Your task to perform on an android device: change notification settings in the gmail app Image 0: 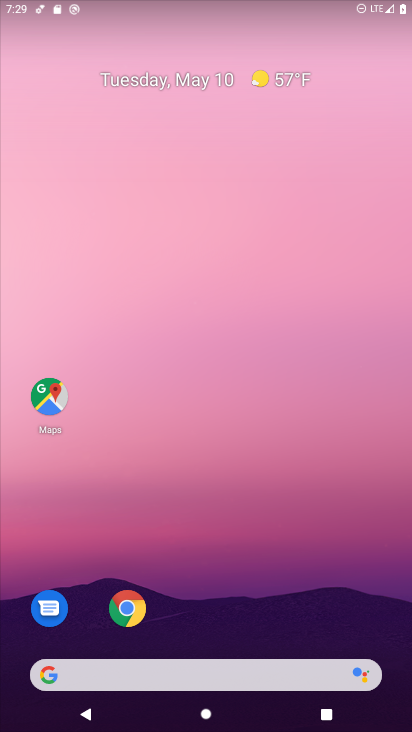
Step 0: drag from (370, 618) to (259, 33)
Your task to perform on an android device: change notification settings in the gmail app Image 1: 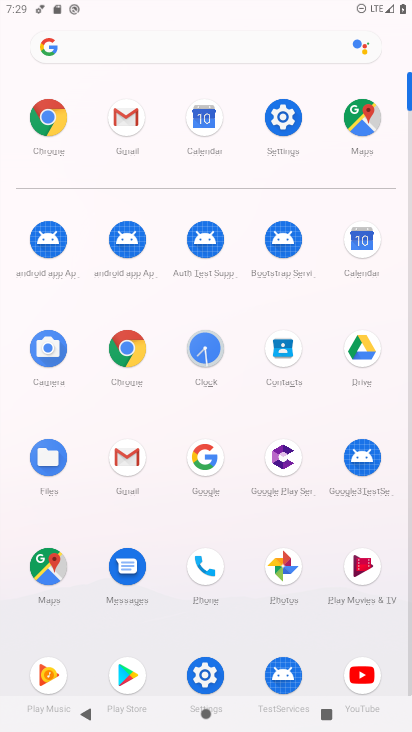
Step 1: click (137, 474)
Your task to perform on an android device: change notification settings in the gmail app Image 2: 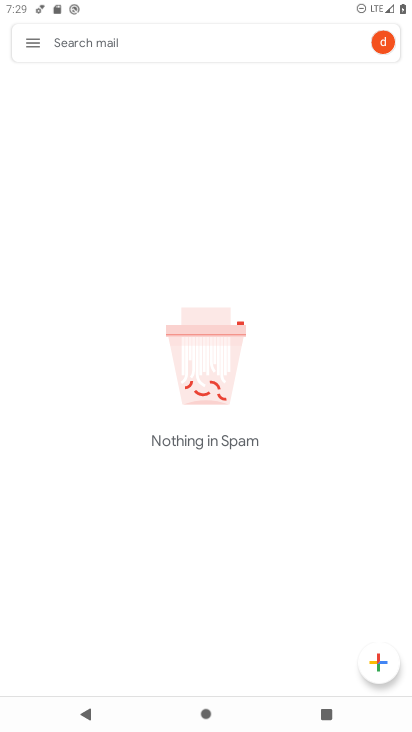
Step 2: click (26, 51)
Your task to perform on an android device: change notification settings in the gmail app Image 3: 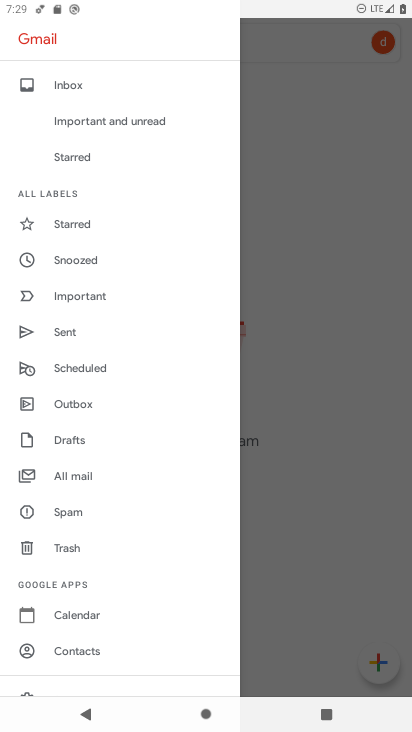
Step 3: drag from (98, 636) to (130, 271)
Your task to perform on an android device: change notification settings in the gmail app Image 4: 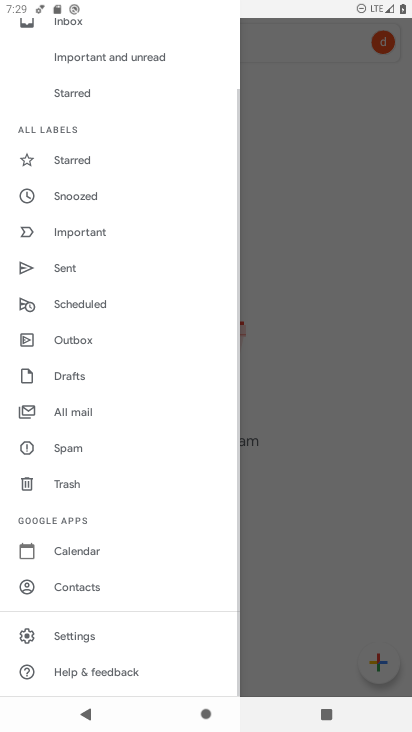
Step 4: click (88, 630)
Your task to perform on an android device: change notification settings in the gmail app Image 5: 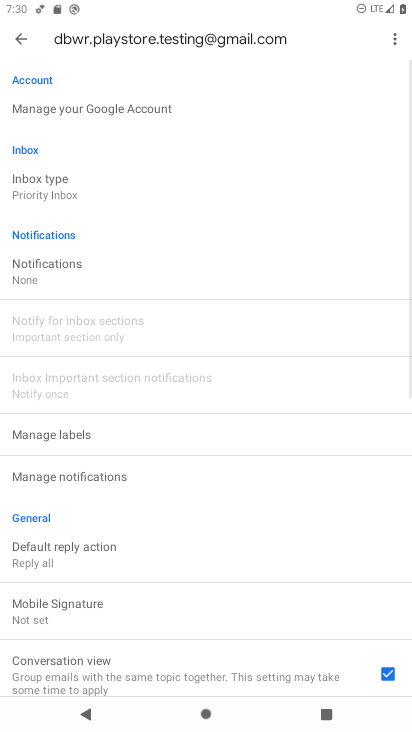
Step 5: click (95, 278)
Your task to perform on an android device: change notification settings in the gmail app Image 6: 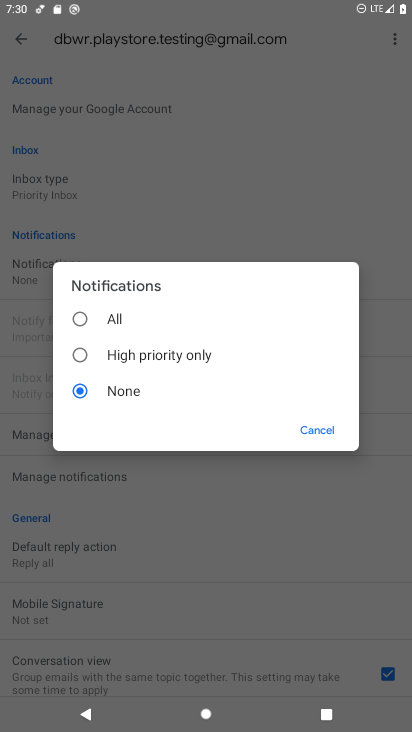
Step 6: click (95, 321)
Your task to perform on an android device: change notification settings in the gmail app Image 7: 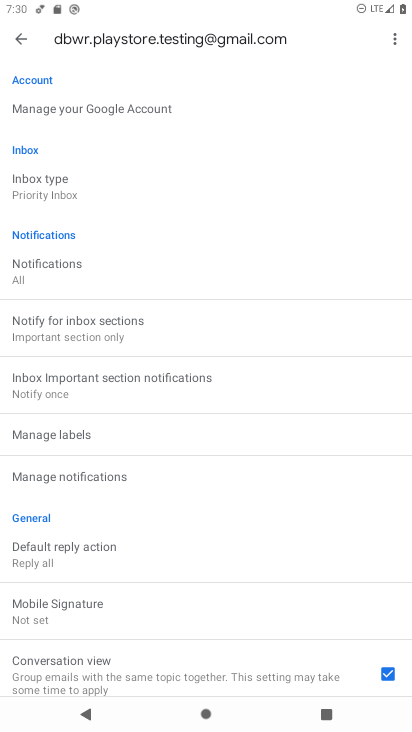
Step 7: task complete